Your task to perform on an android device: Do I have any events this weekend? Image 0: 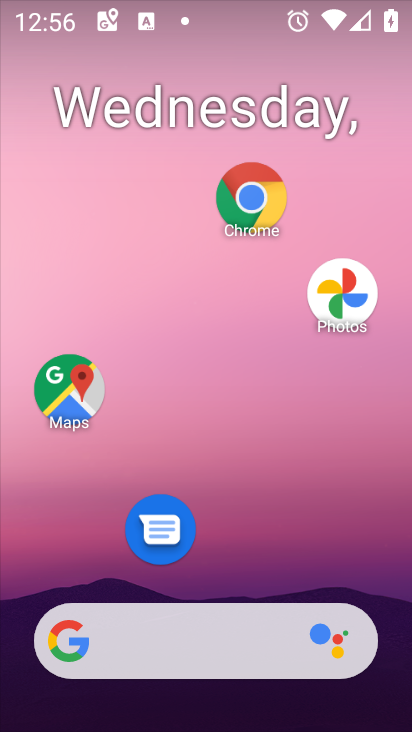
Step 0: drag from (184, 639) to (217, 35)
Your task to perform on an android device: Do I have any events this weekend? Image 1: 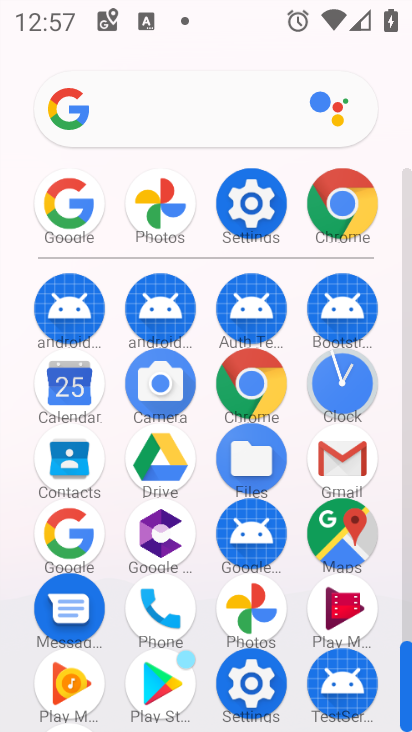
Step 1: click (66, 403)
Your task to perform on an android device: Do I have any events this weekend? Image 2: 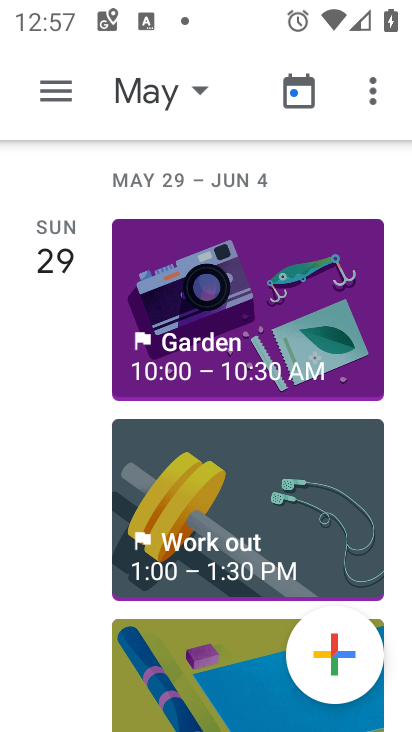
Step 2: click (189, 85)
Your task to perform on an android device: Do I have any events this weekend? Image 3: 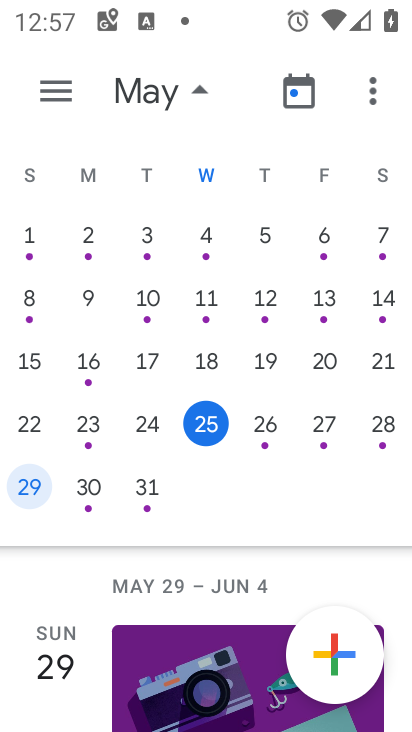
Step 3: click (372, 434)
Your task to perform on an android device: Do I have any events this weekend? Image 4: 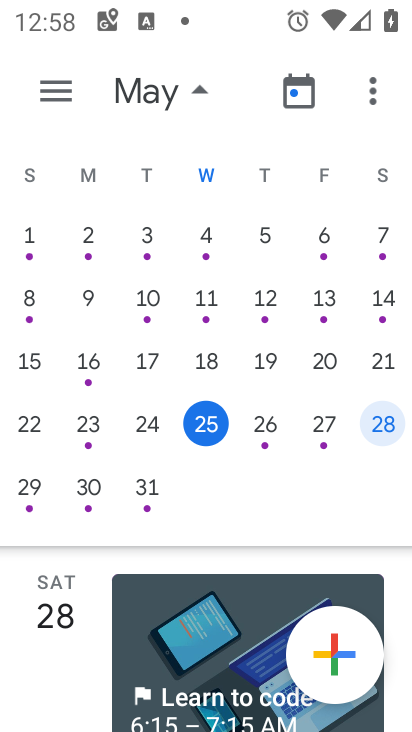
Step 4: task complete